Your task to perform on an android device: stop showing notifications on the lock screen Image 0: 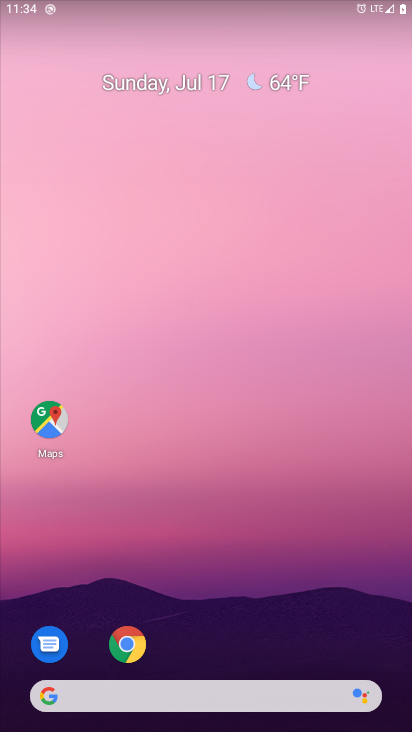
Step 0: press home button
Your task to perform on an android device: stop showing notifications on the lock screen Image 1: 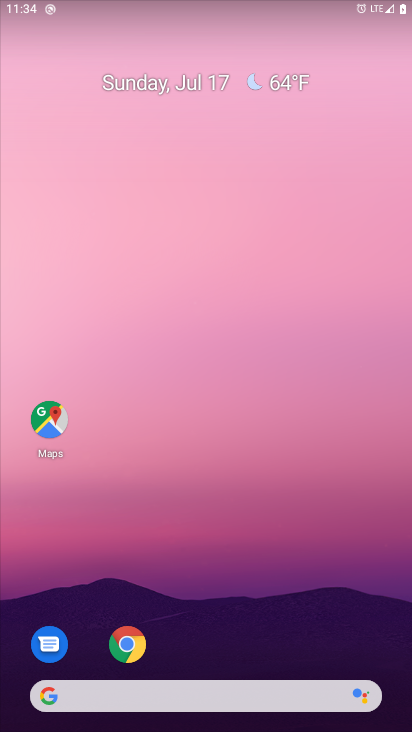
Step 1: drag from (288, 604) to (298, 1)
Your task to perform on an android device: stop showing notifications on the lock screen Image 2: 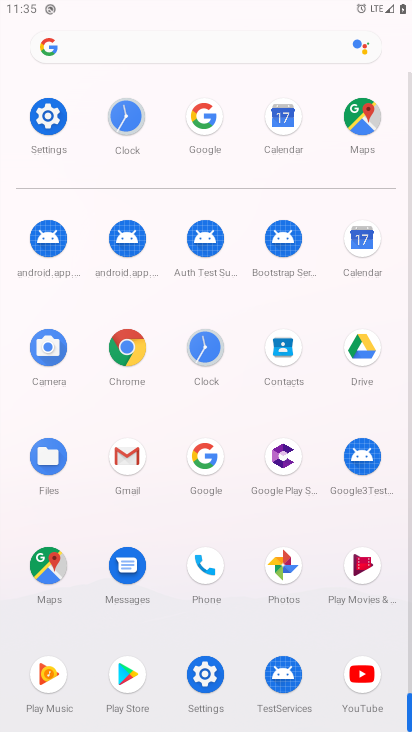
Step 2: click (46, 116)
Your task to perform on an android device: stop showing notifications on the lock screen Image 3: 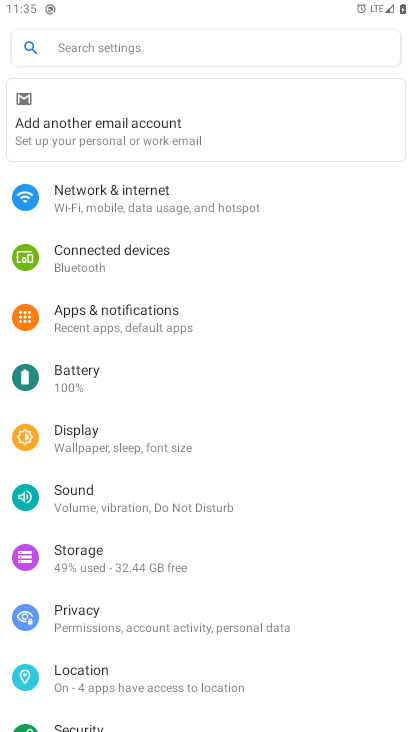
Step 3: click (166, 316)
Your task to perform on an android device: stop showing notifications on the lock screen Image 4: 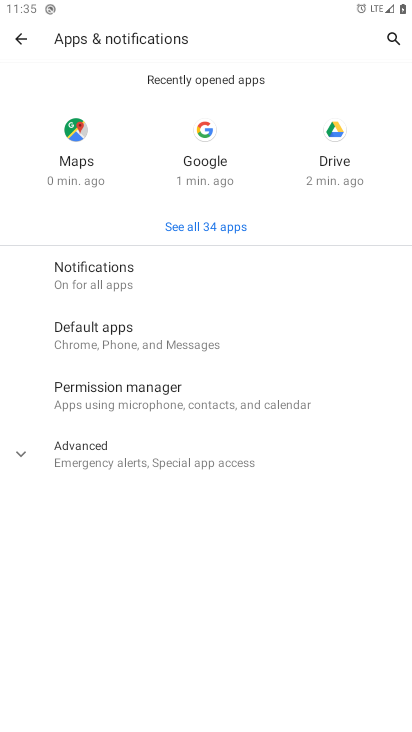
Step 4: click (85, 278)
Your task to perform on an android device: stop showing notifications on the lock screen Image 5: 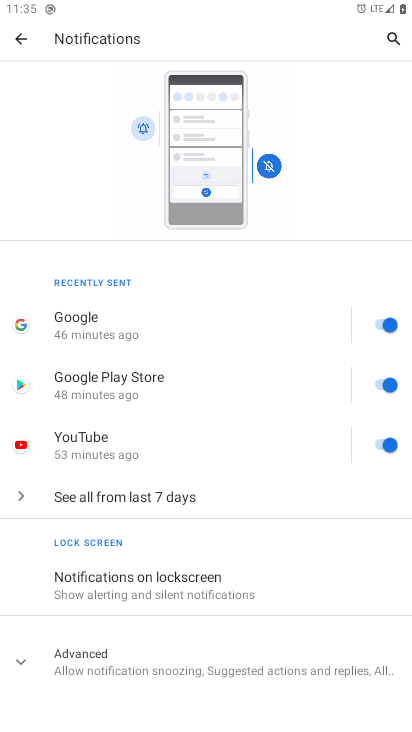
Step 5: click (145, 580)
Your task to perform on an android device: stop showing notifications on the lock screen Image 6: 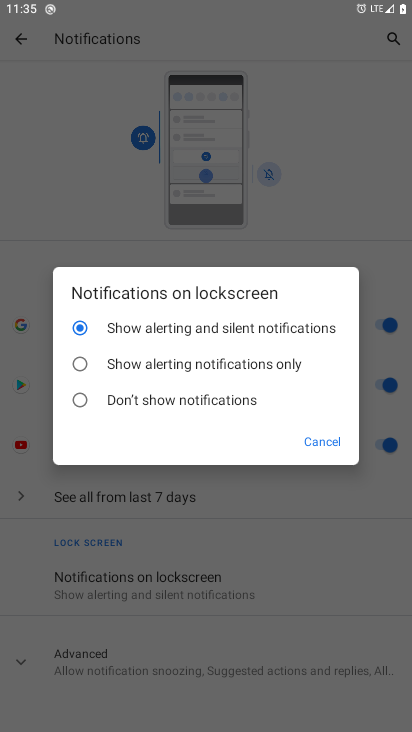
Step 6: click (82, 403)
Your task to perform on an android device: stop showing notifications on the lock screen Image 7: 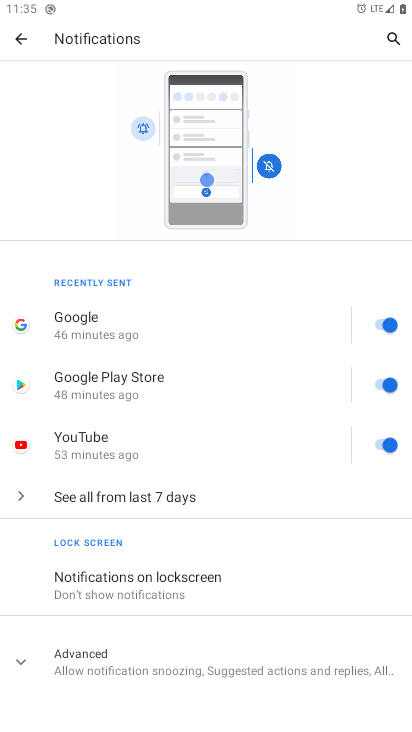
Step 7: task complete